Your task to perform on an android device: check the backup settings in the google photos Image 0: 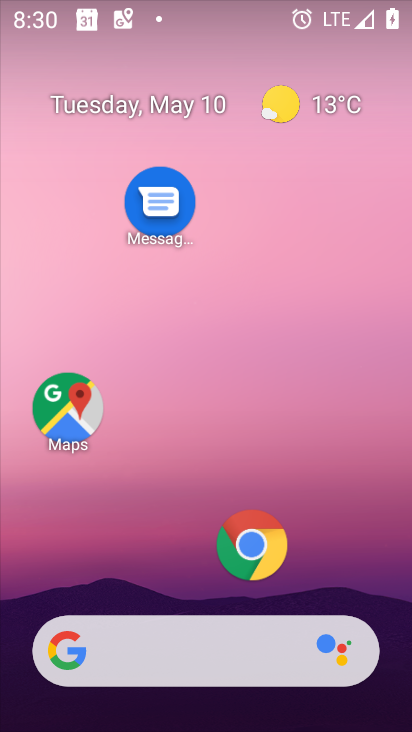
Step 0: press home button
Your task to perform on an android device: check the backup settings in the google photos Image 1: 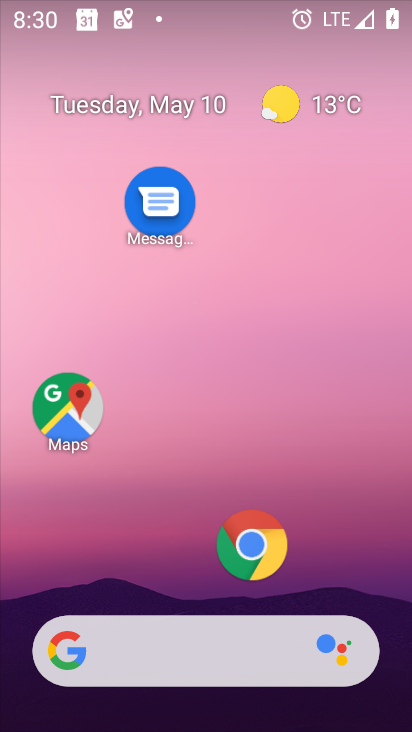
Step 1: drag from (207, 591) to (263, 64)
Your task to perform on an android device: check the backup settings in the google photos Image 2: 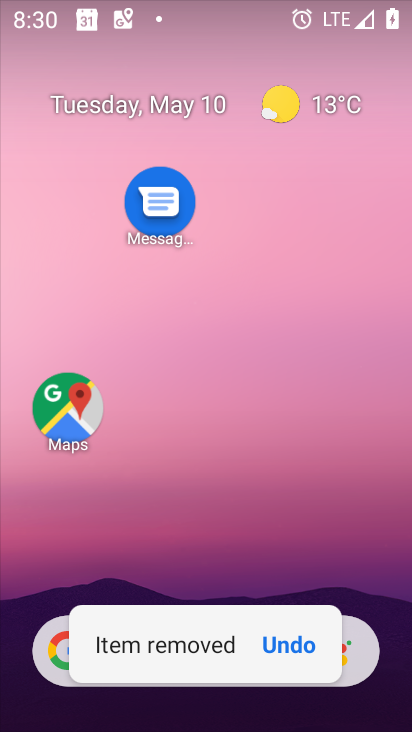
Step 2: click (289, 641)
Your task to perform on an android device: check the backup settings in the google photos Image 3: 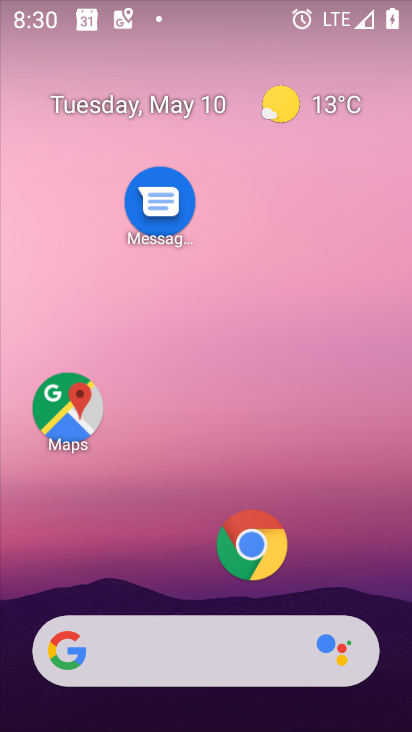
Step 3: drag from (323, 584) to (340, 26)
Your task to perform on an android device: check the backup settings in the google photos Image 4: 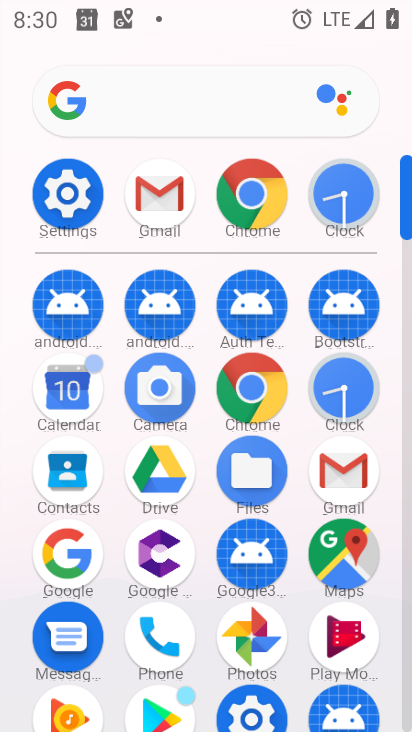
Step 4: click (250, 627)
Your task to perform on an android device: check the backup settings in the google photos Image 5: 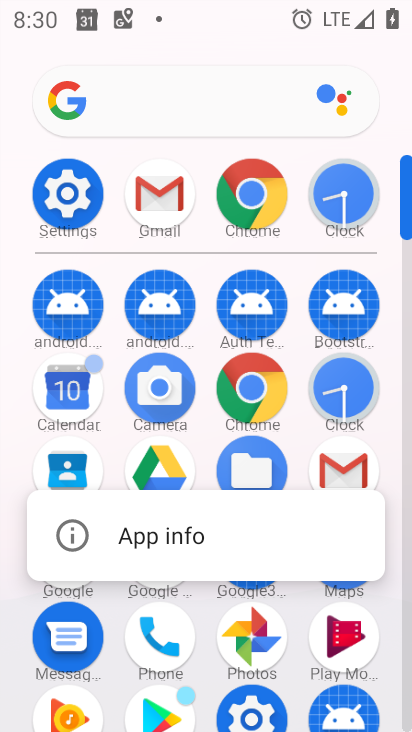
Step 5: click (249, 627)
Your task to perform on an android device: check the backup settings in the google photos Image 6: 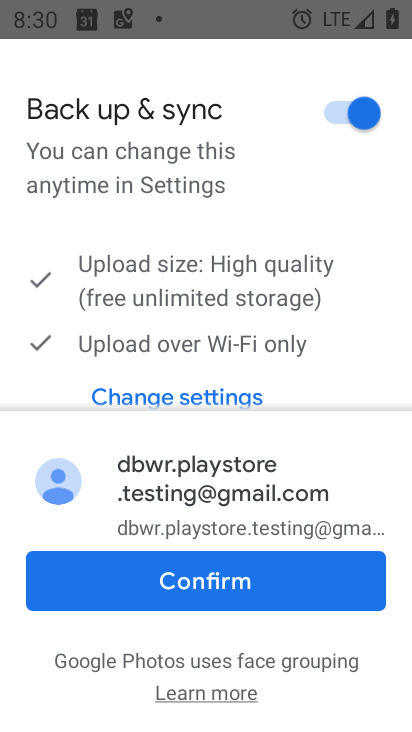
Step 6: click (199, 579)
Your task to perform on an android device: check the backup settings in the google photos Image 7: 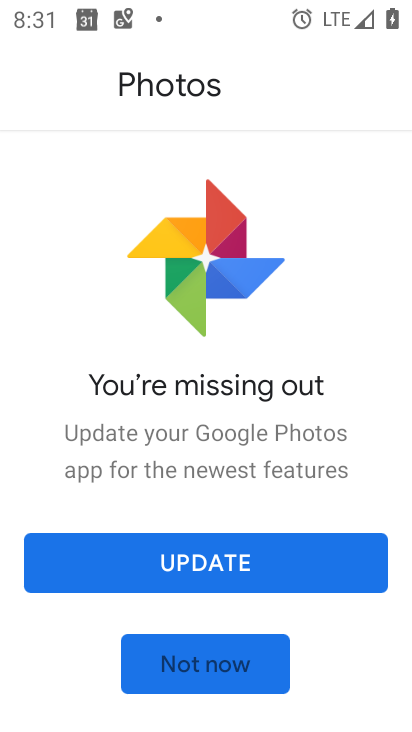
Step 7: click (214, 561)
Your task to perform on an android device: check the backup settings in the google photos Image 8: 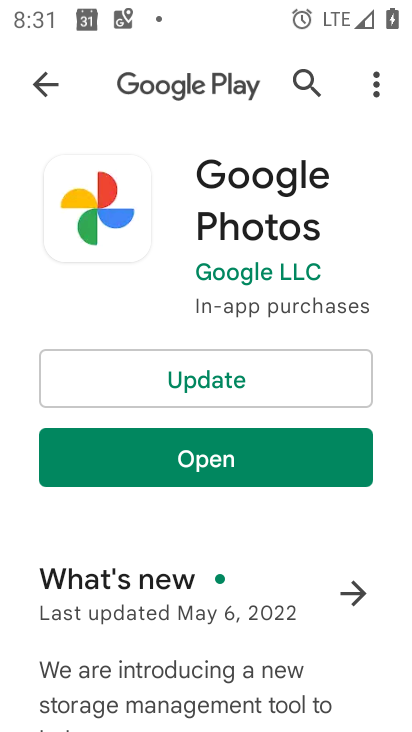
Step 8: click (210, 386)
Your task to perform on an android device: check the backup settings in the google photos Image 9: 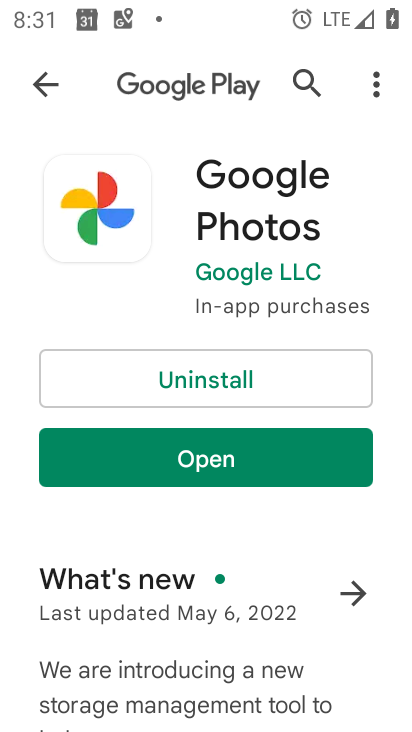
Step 9: click (207, 466)
Your task to perform on an android device: check the backup settings in the google photos Image 10: 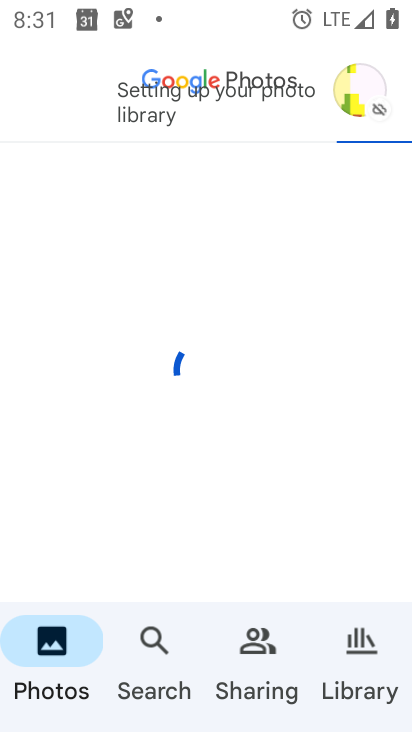
Step 10: click (355, 81)
Your task to perform on an android device: check the backup settings in the google photos Image 11: 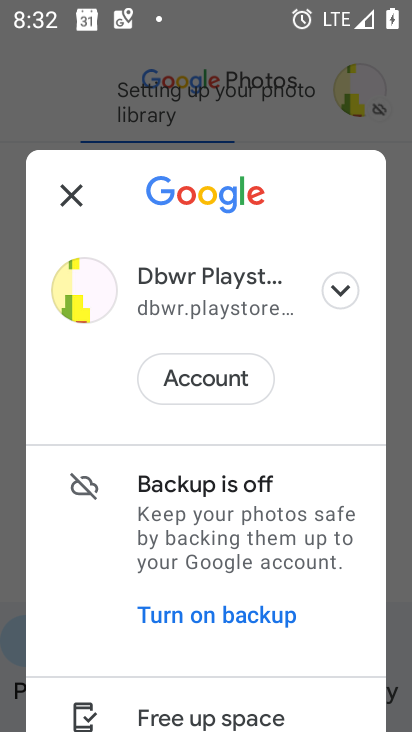
Step 11: drag from (98, 580) to (145, 227)
Your task to perform on an android device: check the backup settings in the google photos Image 12: 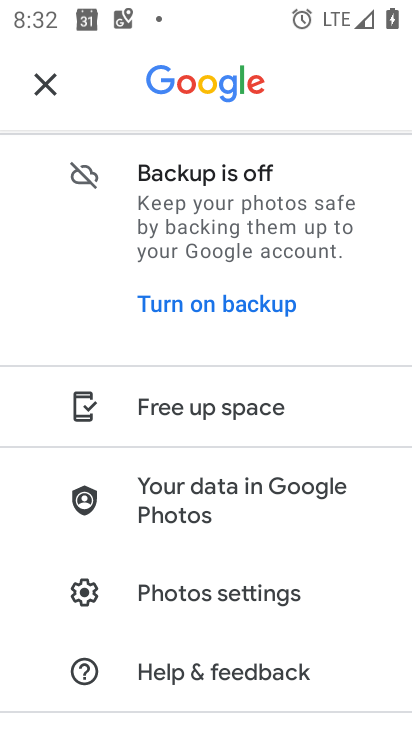
Step 12: click (204, 591)
Your task to perform on an android device: check the backup settings in the google photos Image 13: 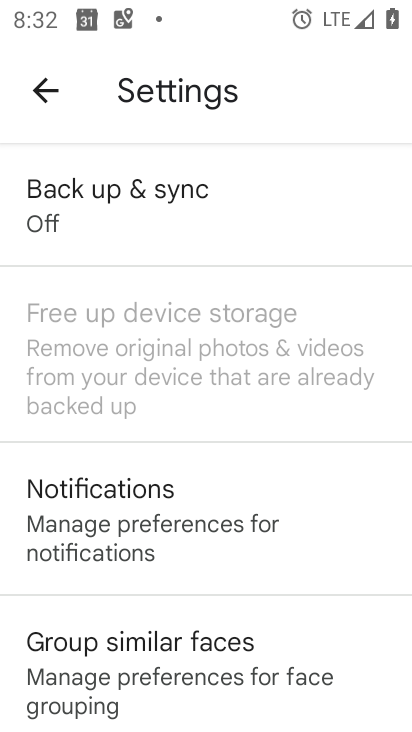
Step 13: click (108, 231)
Your task to perform on an android device: check the backup settings in the google photos Image 14: 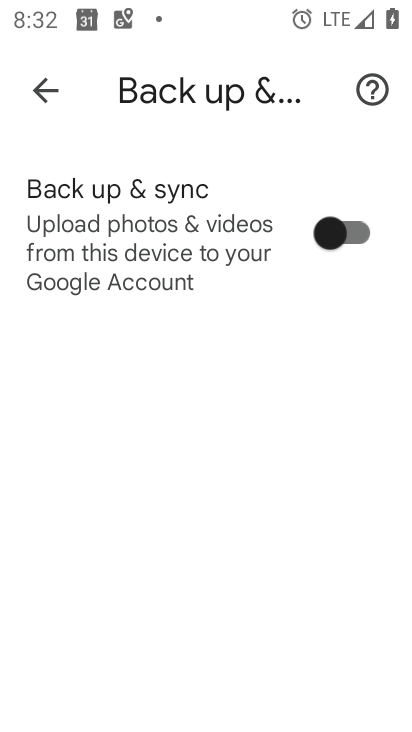
Step 14: click (347, 231)
Your task to perform on an android device: check the backup settings in the google photos Image 15: 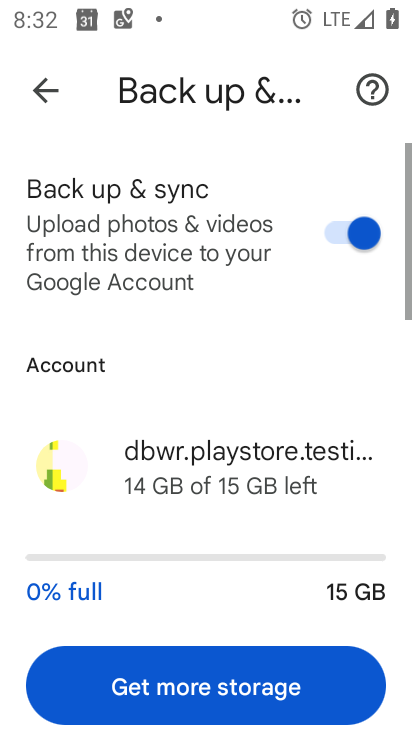
Step 15: task complete